Your task to perform on an android device: toggle javascript in the chrome app Image 0: 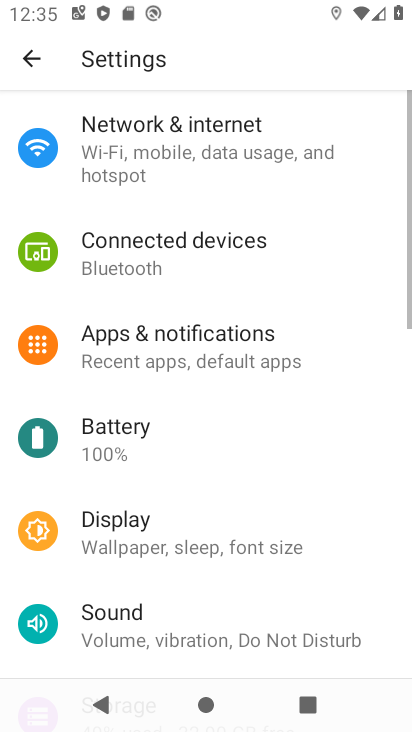
Step 0: press home button
Your task to perform on an android device: toggle javascript in the chrome app Image 1: 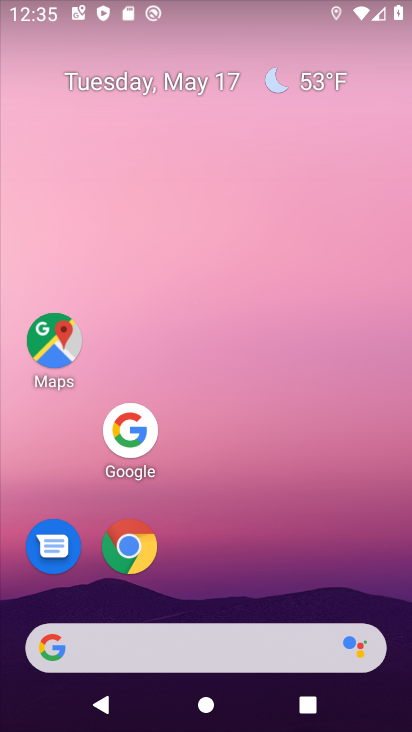
Step 1: click (129, 541)
Your task to perform on an android device: toggle javascript in the chrome app Image 2: 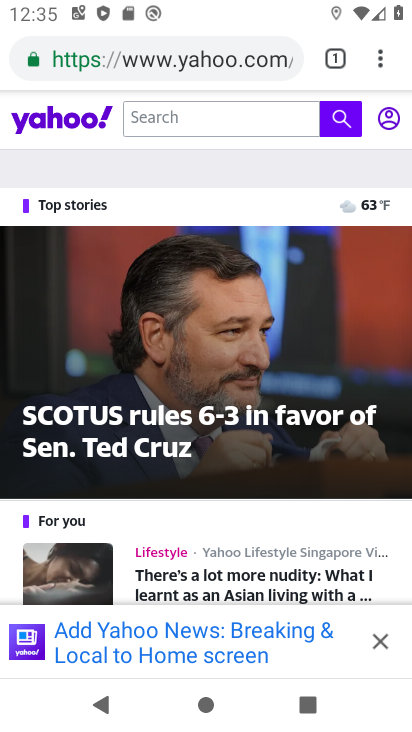
Step 2: click (368, 61)
Your task to perform on an android device: toggle javascript in the chrome app Image 3: 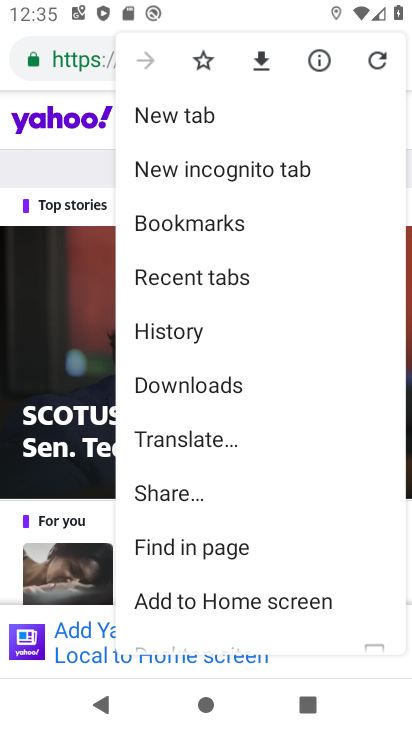
Step 3: drag from (187, 539) to (277, 158)
Your task to perform on an android device: toggle javascript in the chrome app Image 4: 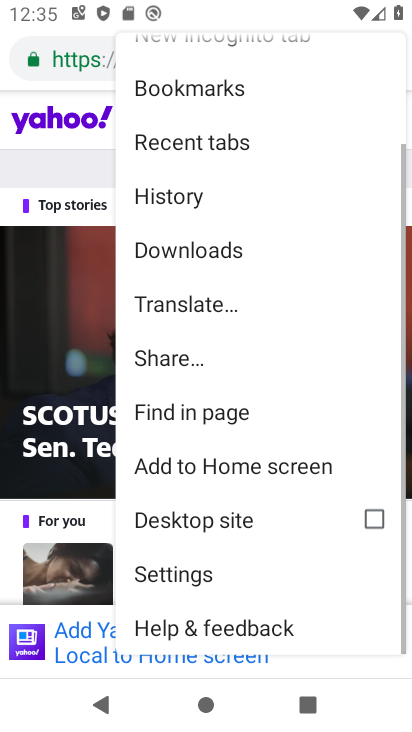
Step 4: click (173, 575)
Your task to perform on an android device: toggle javascript in the chrome app Image 5: 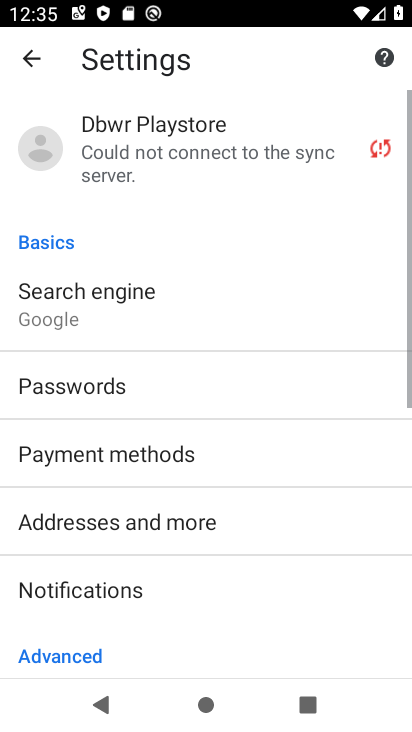
Step 5: drag from (280, 589) to (294, 118)
Your task to perform on an android device: toggle javascript in the chrome app Image 6: 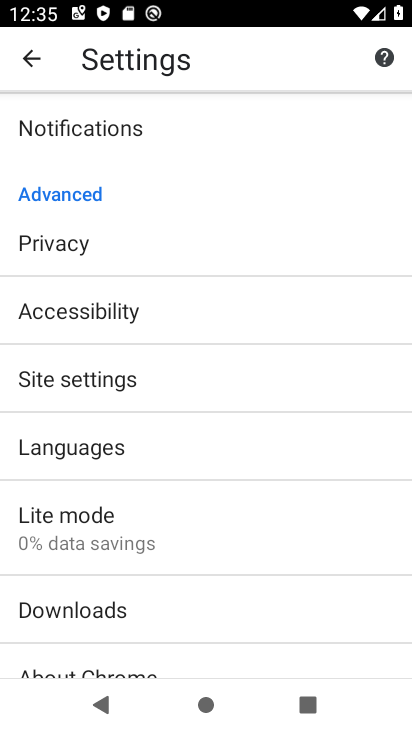
Step 6: click (106, 362)
Your task to perform on an android device: toggle javascript in the chrome app Image 7: 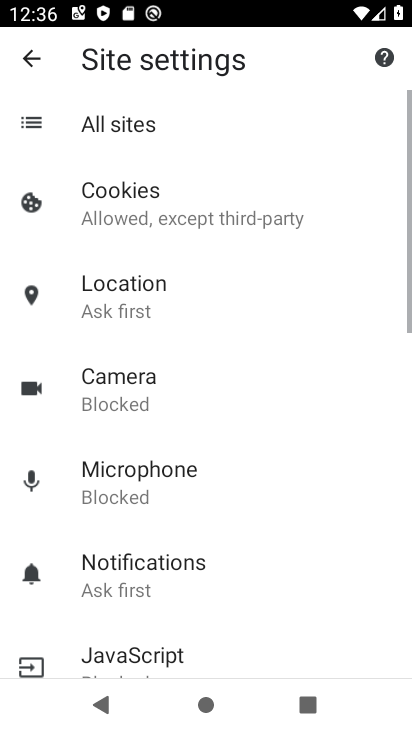
Step 7: drag from (220, 592) to (216, 394)
Your task to perform on an android device: toggle javascript in the chrome app Image 8: 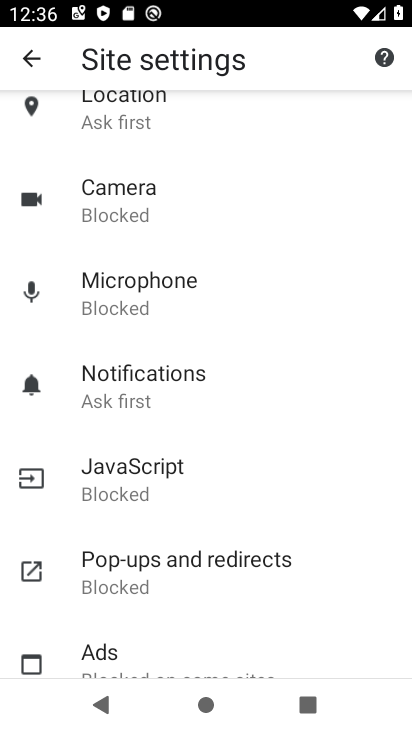
Step 8: click (159, 511)
Your task to perform on an android device: toggle javascript in the chrome app Image 9: 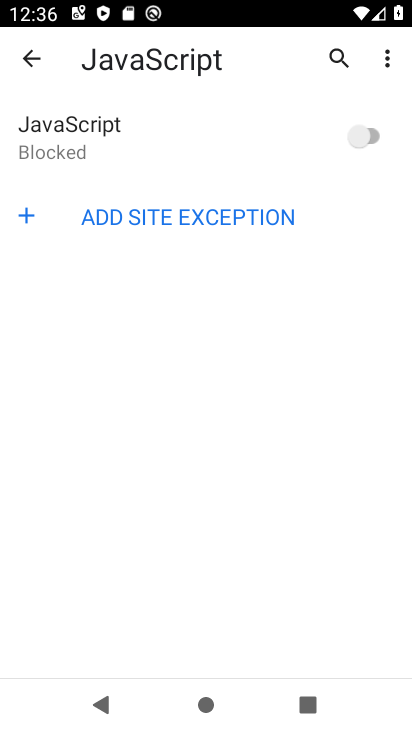
Step 9: click (367, 135)
Your task to perform on an android device: toggle javascript in the chrome app Image 10: 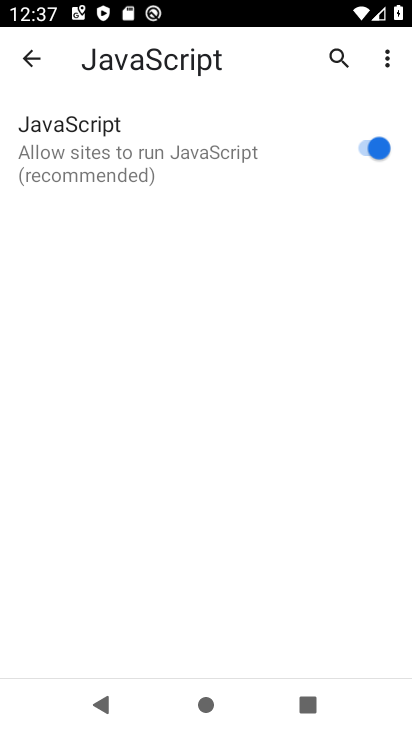
Step 10: task complete